Your task to perform on an android device: Turn on the flashlight Image 0: 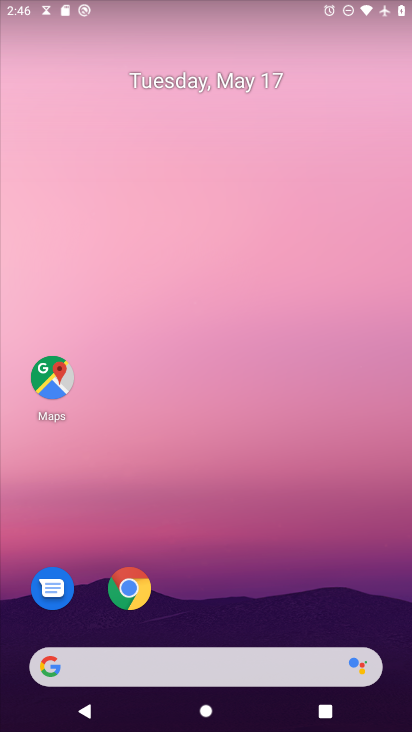
Step 0: drag from (169, 613) to (62, 137)
Your task to perform on an android device: Turn on the flashlight Image 1: 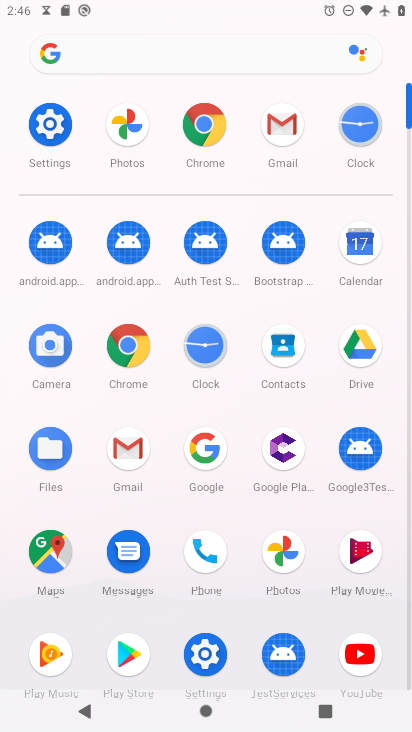
Step 1: click (42, 120)
Your task to perform on an android device: Turn on the flashlight Image 2: 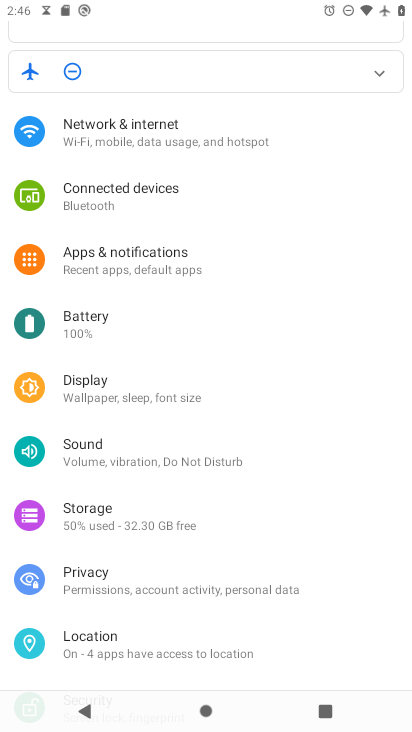
Step 2: click (182, 78)
Your task to perform on an android device: Turn on the flashlight Image 3: 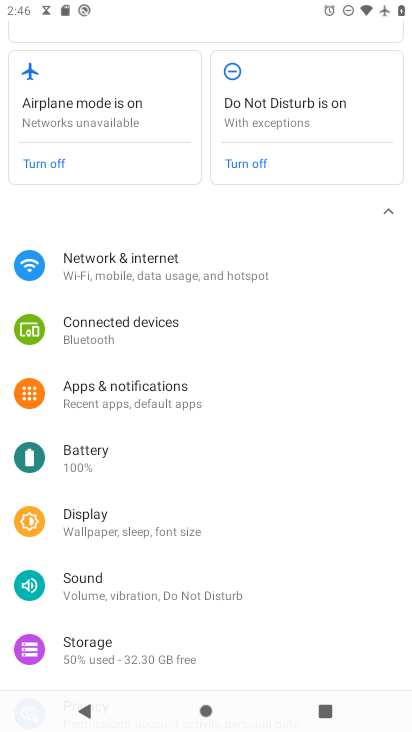
Step 3: drag from (183, 93) to (160, 321)
Your task to perform on an android device: Turn on the flashlight Image 4: 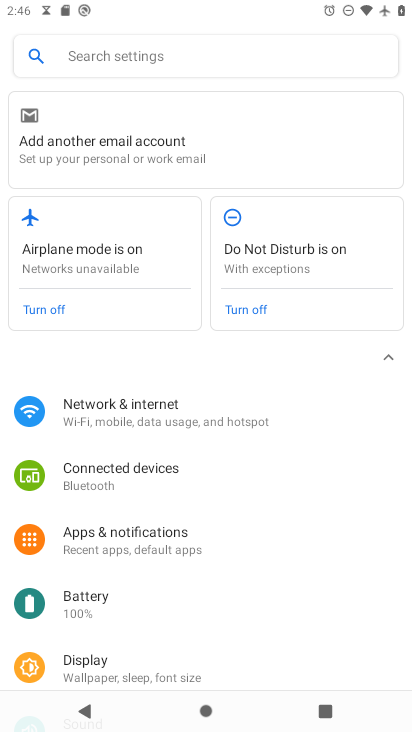
Step 4: click (152, 68)
Your task to perform on an android device: Turn on the flashlight Image 5: 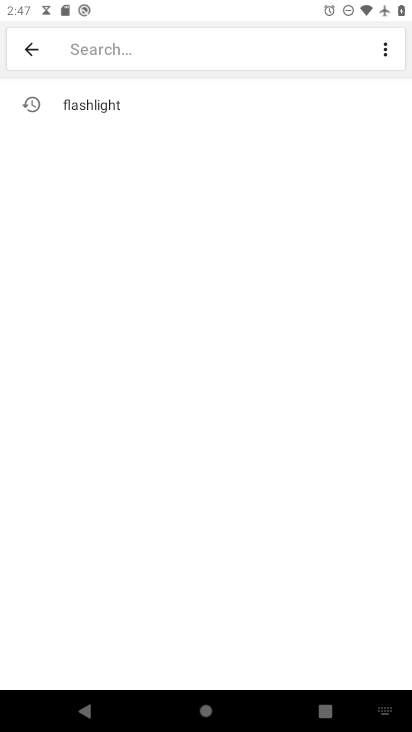
Step 5: click (74, 105)
Your task to perform on an android device: Turn on the flashlight Image 6: 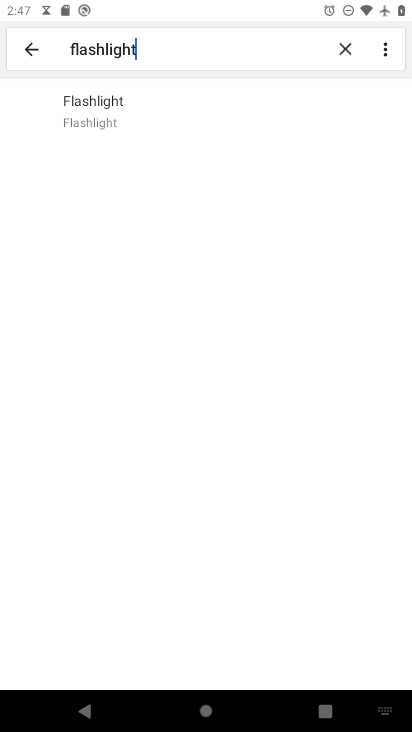
Step 6: click (93, 114)
Your task to perform on an android device: Turn on the flashlight Image 7: 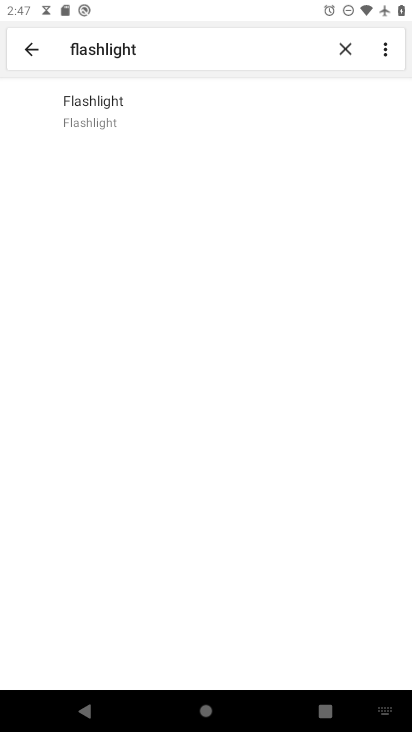
Step 7: click (94, 114)
Your task to perform on an android device: Turn on the flashlight Image 8: 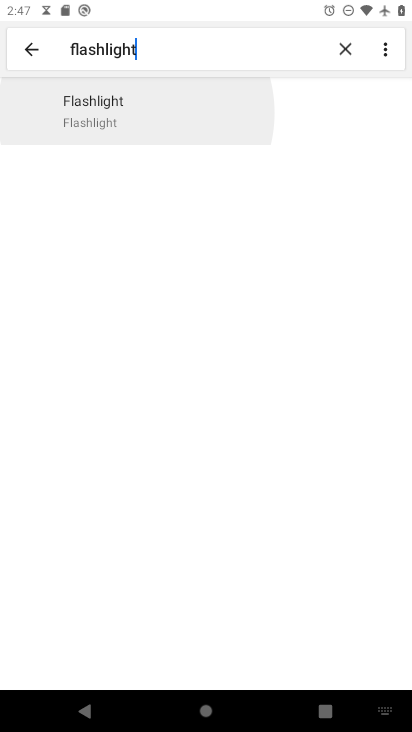
Step 8: click (94, 114)
Your task to perform on an android device: Turn on the flashlight Image 9: 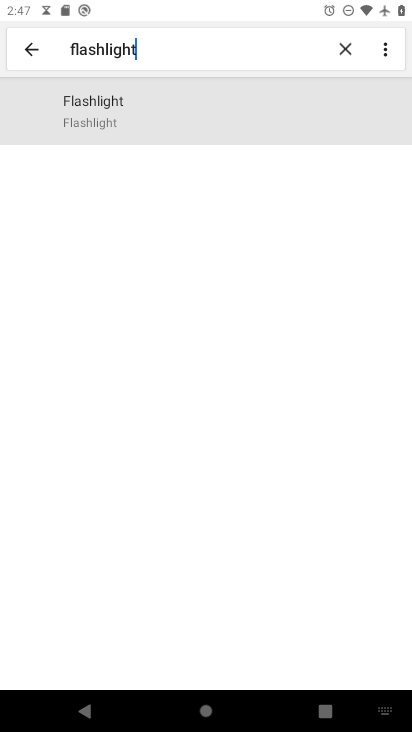
Step 9: click (94, 114)
Your task to perform on an android device: Turn on the flashlight Image 10: 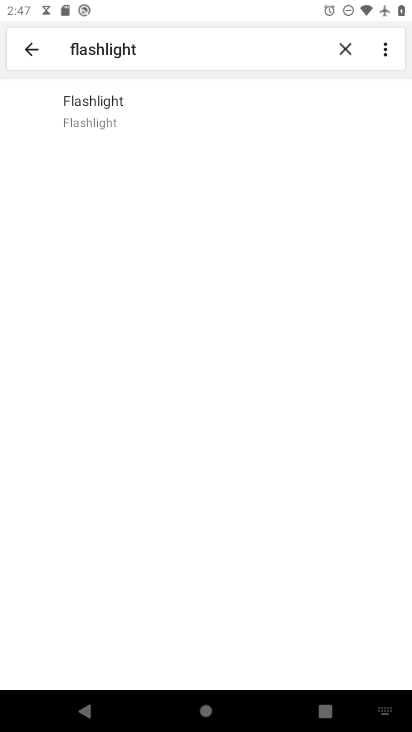
Step 10: task complete